Your task to perform on an android device: Do I have any events today? Image 0: 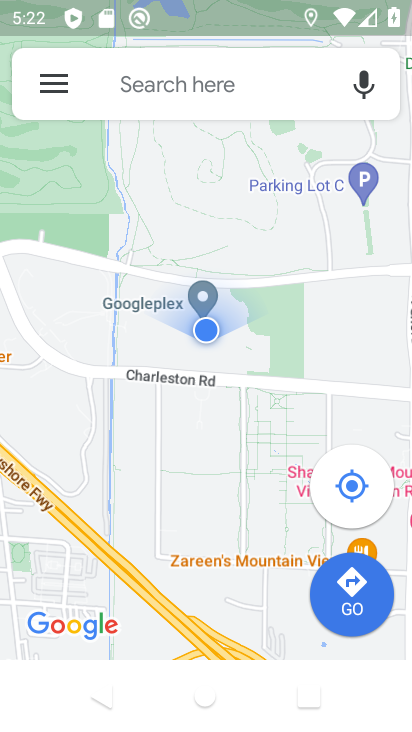
Step 0: press home button
Your task to perform on an android device: Do I have any events today? Image 1: 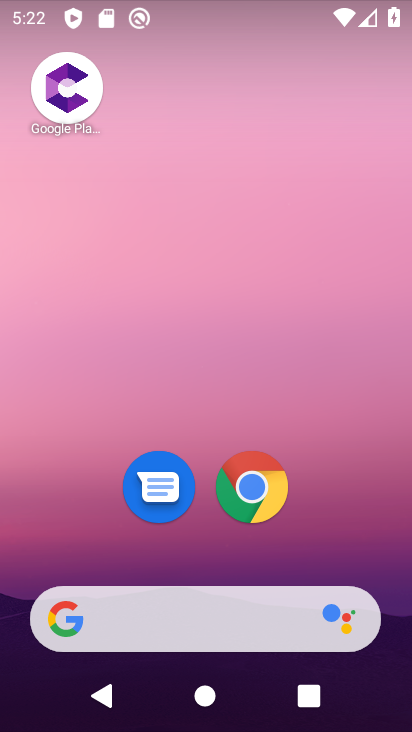
Step 1: drag from (205, 565) to (175, 106)
Your task to perform on an android device: Do I have any events today? Image 2: 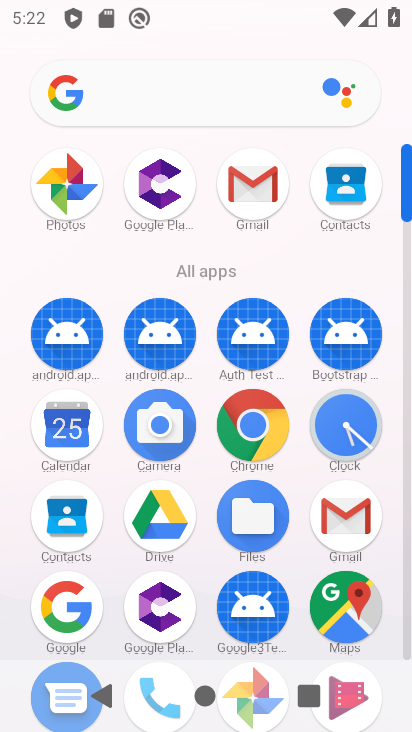
Step 2: drag from (301, 643) to (294, 268)
Your task to perform on an android device: Do I have any events today? Image 3: 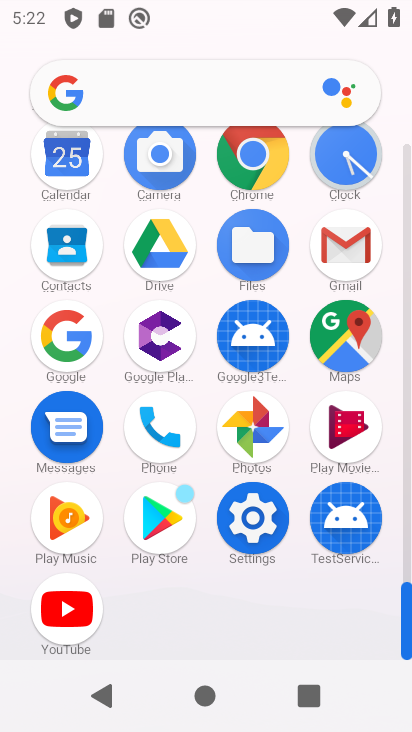
Step 3: click (55, 182)
Your task to perform on an android device: Do I have any events today? Image 4: 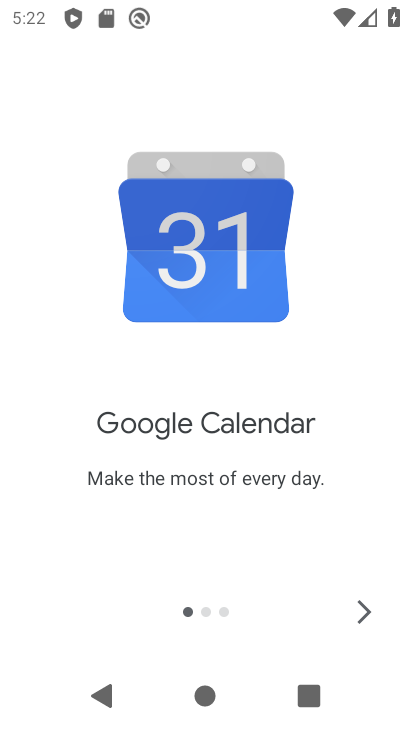
Step 4: click (360, 610)
Your task to perform on an android device: Do I have any events today? Image 5: 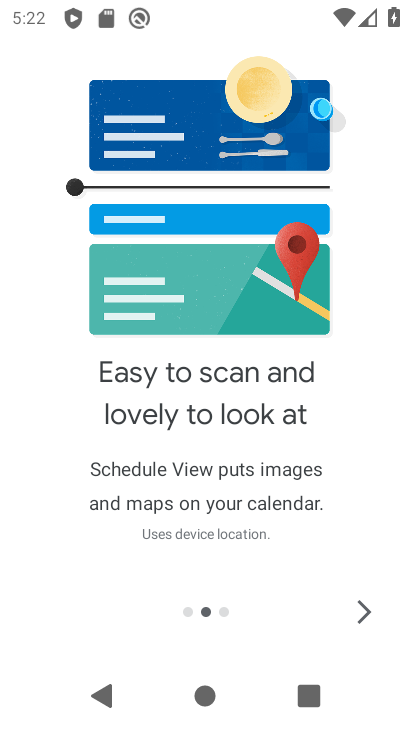
Step 5: click (361, 610)
Your task to perform on an android device: Do I have any events today? Image 6: 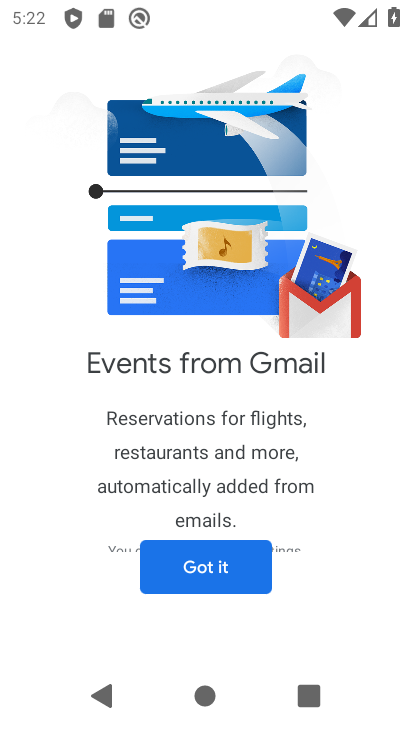
Step 6: click (361, 610)
Your task to perform on an android device: Do I have any events today? Image 7: 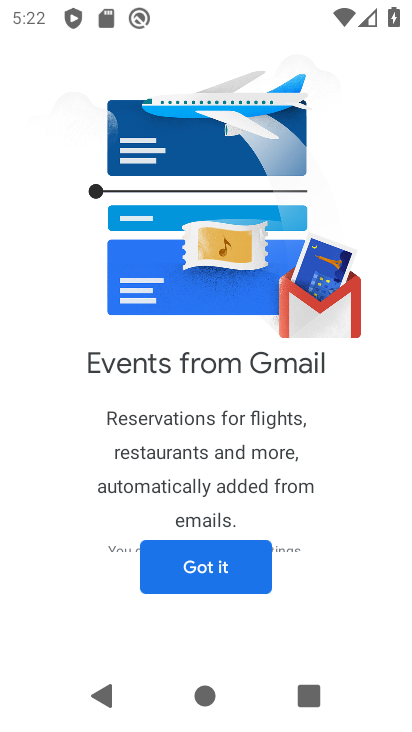
Step 7: click (195, 571)
Your task to perform on an android device: Do I have any events today? Image 8: 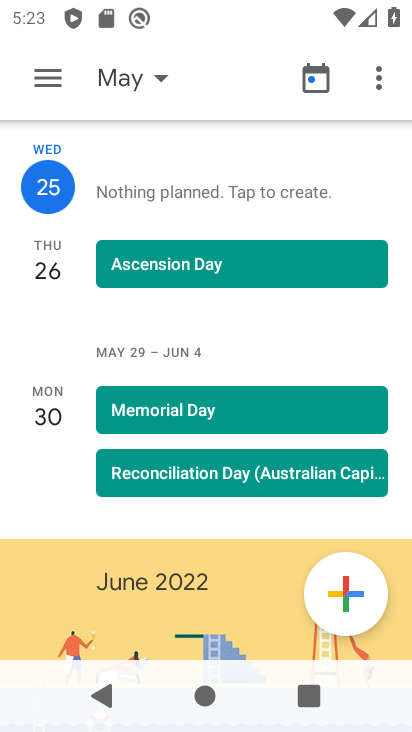
Step 8: task complete